Your task to perform on an android device: Go to wifi settings Image 0: 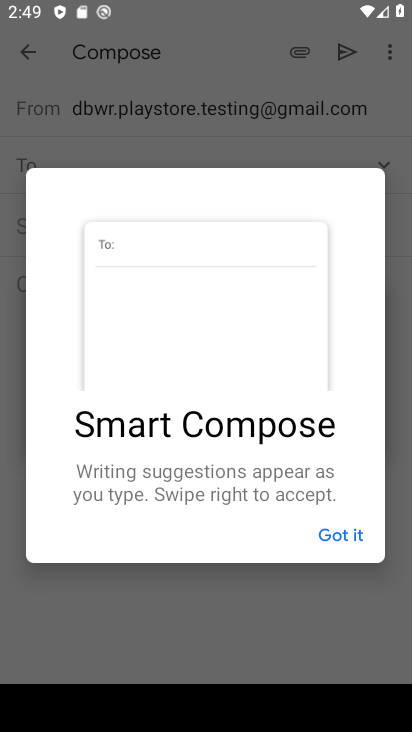
Step 0: press home button
Your task to perform on an android device: Go to wifi settings Image 1: 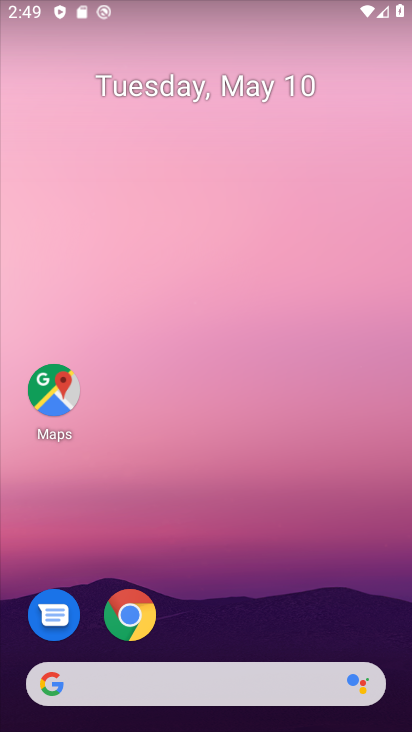
Step 1: drag from (276, 617) to (276, 221)
Your task to perform on an android device: Go to wifi settings Image 2: 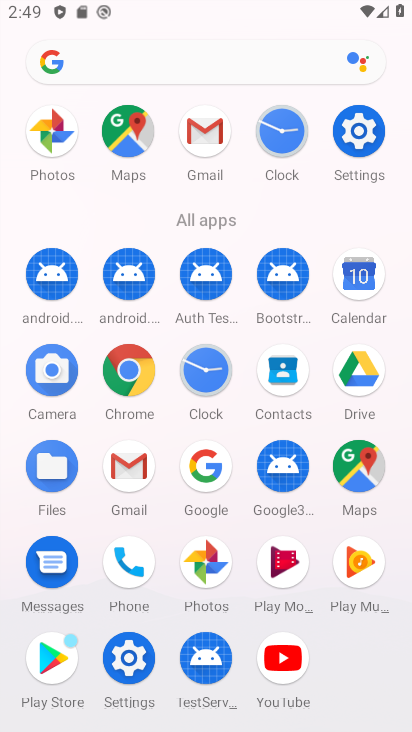
Step 2: click (377, 137)
Your task to perform on an android device: Go to wifi settings Image 3: 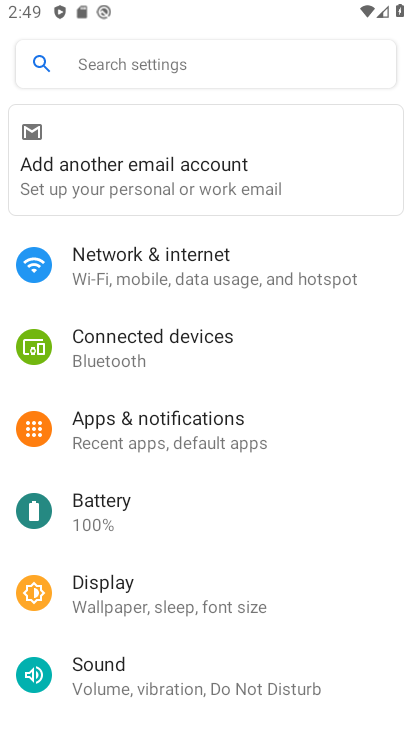
Step 3: click (159, 265)
Your task to perform on an android device: Go to wifi settings Image 4: 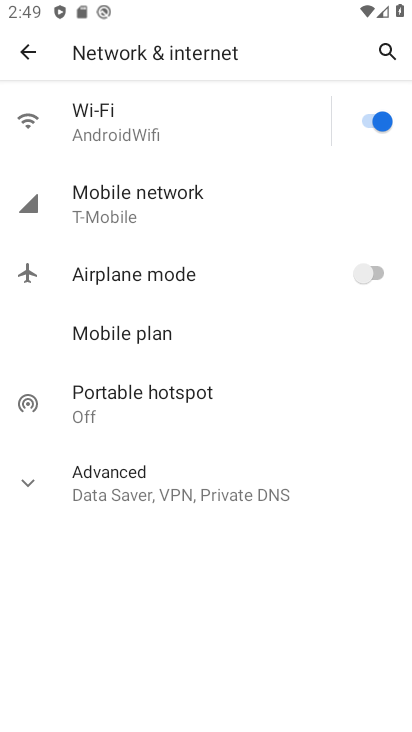
Step 4: click (146, 130)
Your task to perform on an android device: Go to wifi settings Image 5: 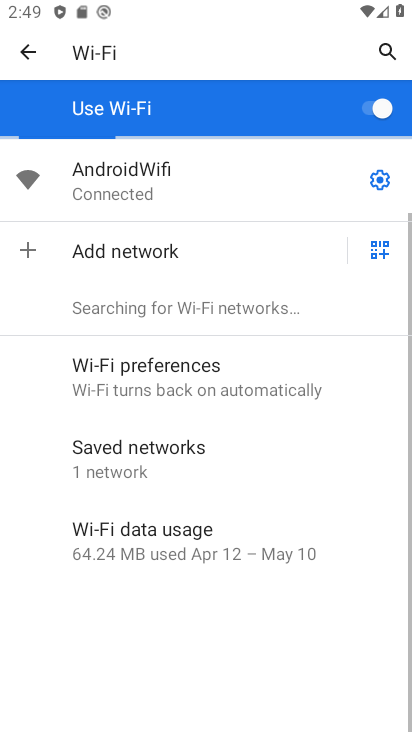
Step 5: task complete